Your task to perform on an android device: toggle location history Image 0: 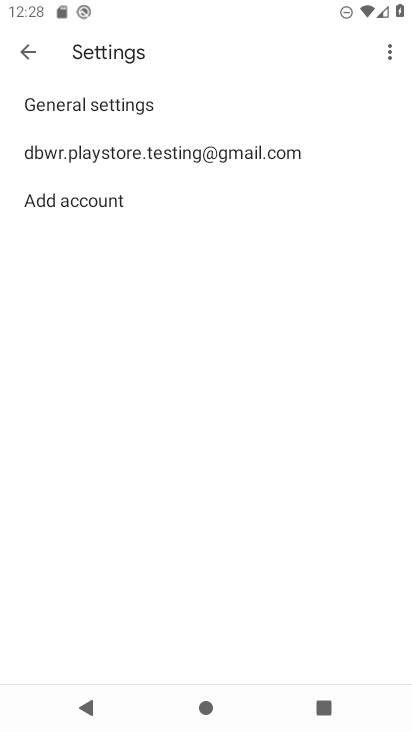
Step 0: press home button
Your task to perform on an android device: toggle location history Image 1: 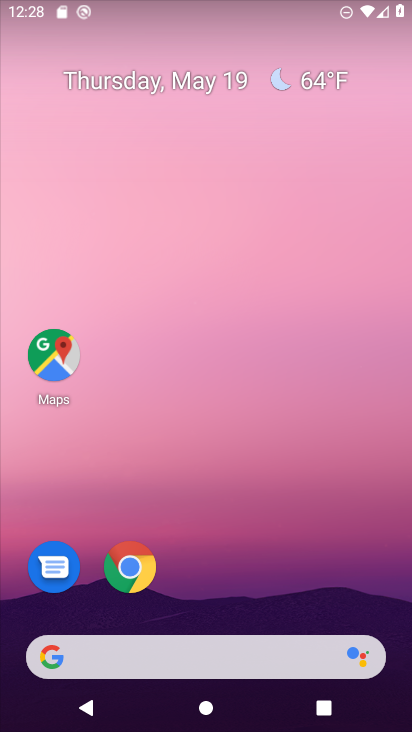
Step 1: drag from (287, 548) to (290, 121)
Your task to perform on an android device: toggle location history Image 2: 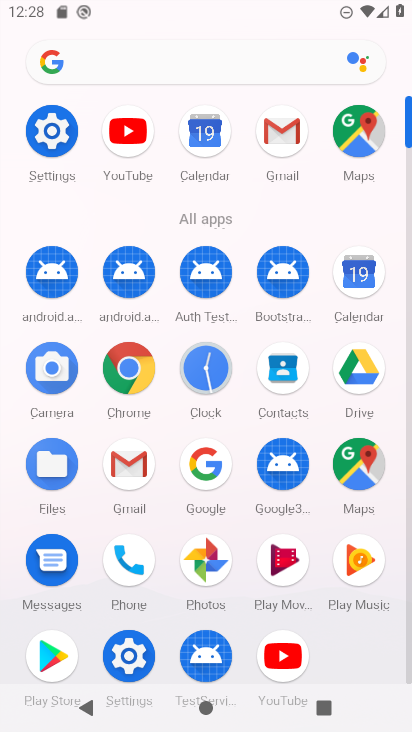
Step 2: click (50, 137)
Your task to perform on an android device: toggle location history Image 3: 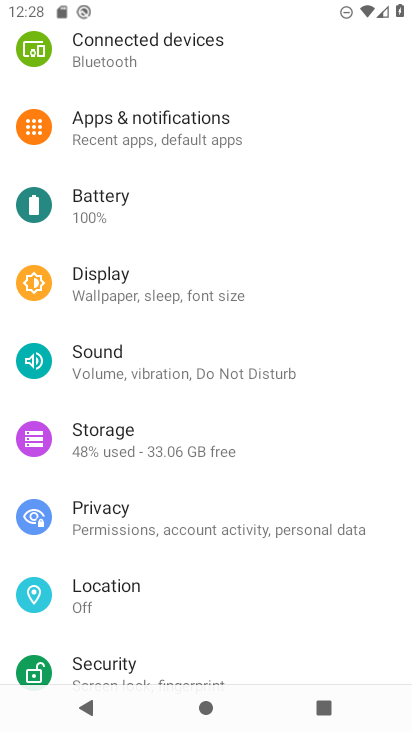
Step 3: click (130, 602)
Your task to perform on an android device: toggle location history Image 4: 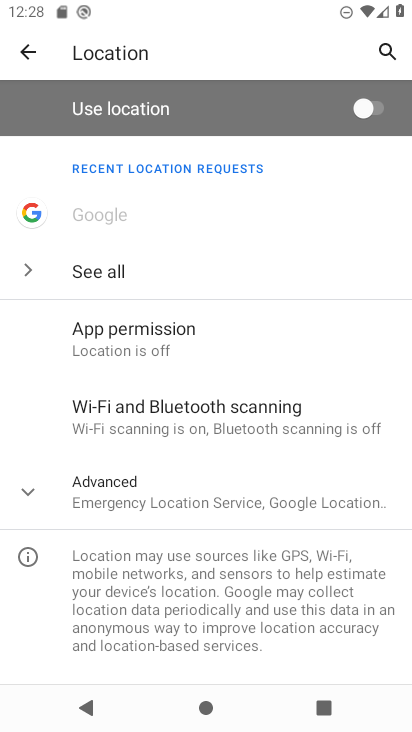
Step 4: click (30, 495)
Your task to perform on an android device: toggle location history Image 5: 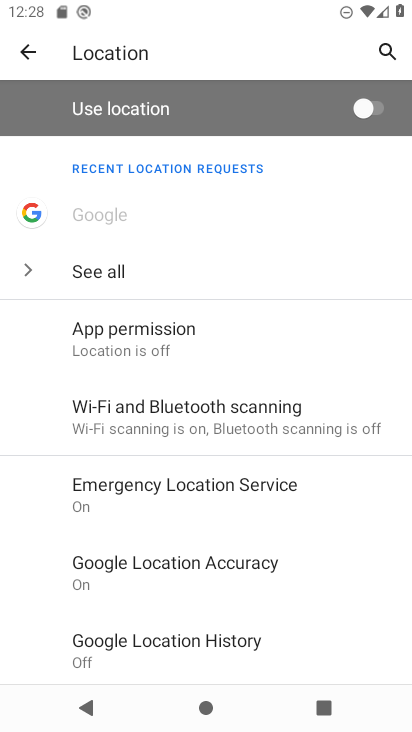
Step 5: click (209, 661)
Your task to perform on an android device: toggle location history Image 6: 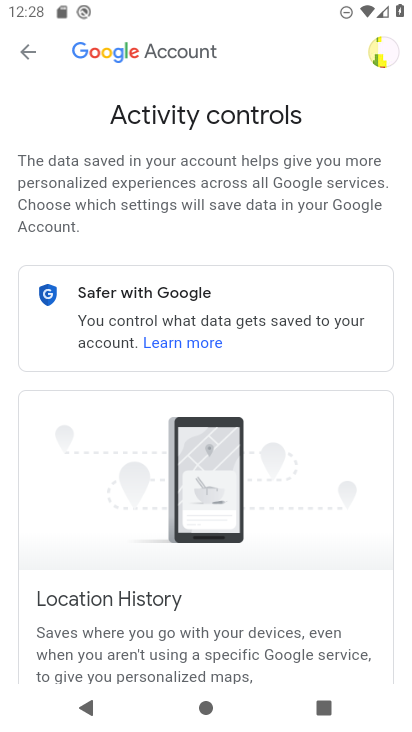
Step 6: drag from (303, 597) to (328, 279)
Your task to perform on an android device: toggle location history Image 7: 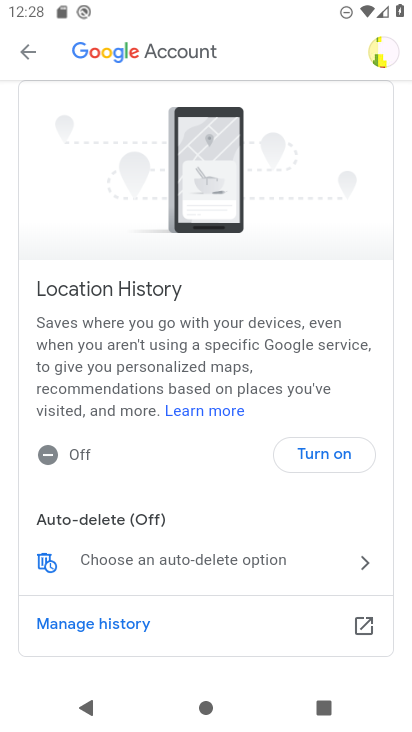
Step 7: click (330, 459)
Your task to perform on an android device: toggle location history Image 8: 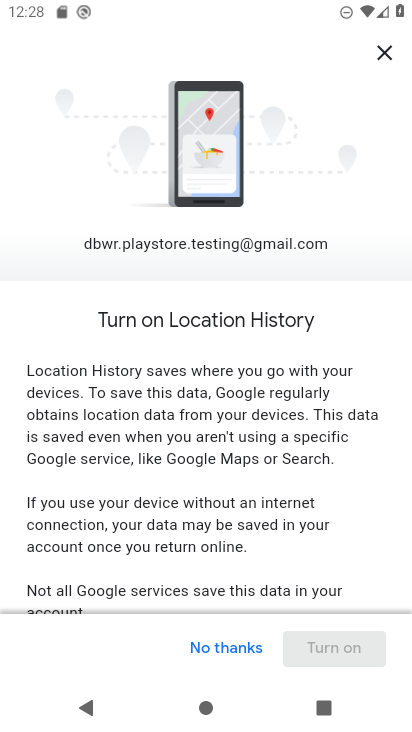
Step 8: task complete